Your task to perform on an android device: open the mobile data screen to see how much data has been used Image 0: 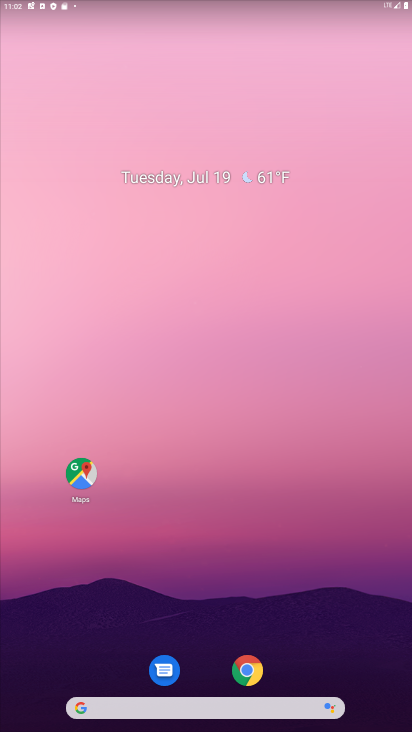
Step 0: drag from (112, 591) to (161, 168)
Your task to perform on an android device: open the mobile data screen to see how much data has been used Image 1: 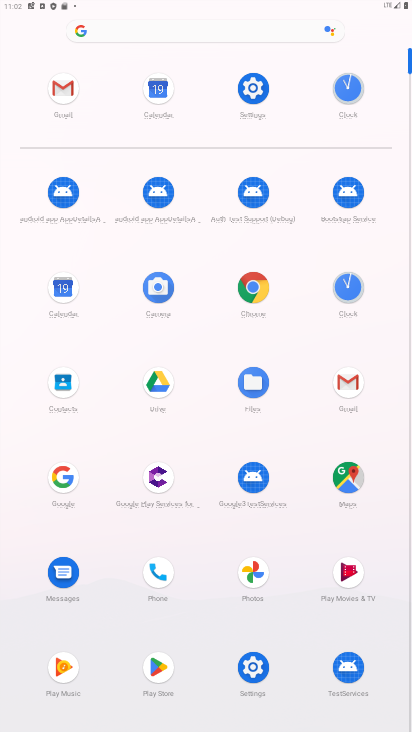
Step 1: click (253, 91)
Your task to perform on an android device: open the mobile data screen to see how much data has been used Image 2: 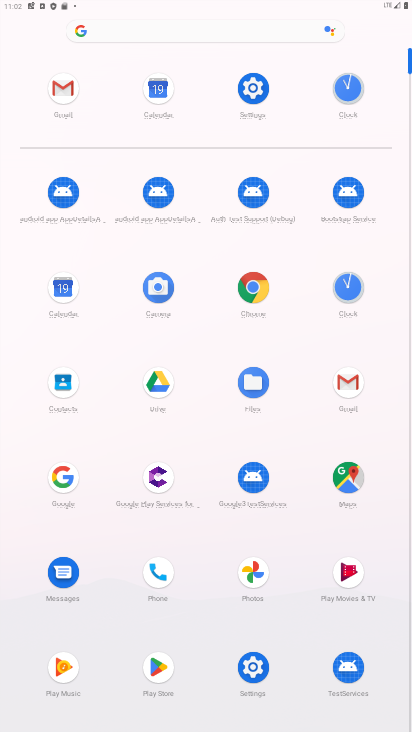
Step 2: click (253, 91)
Your task to perform on an android device: open the mobile data screen to see how much data has been used Image 3: 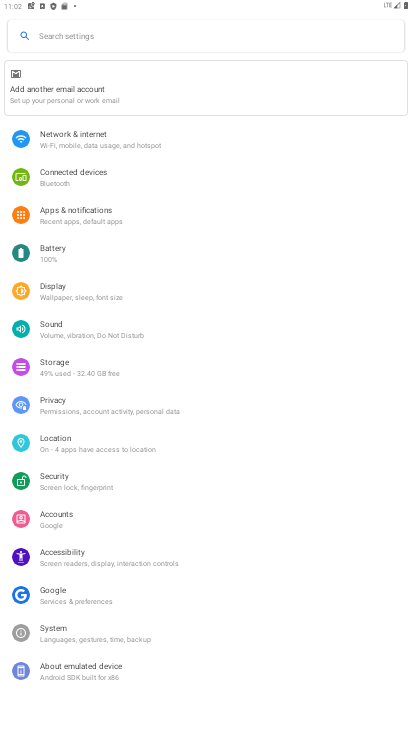
Step 3: click (136, 143)
Your task to perform on an android device: open the mobile data screen to see how much data has been used Image 4: 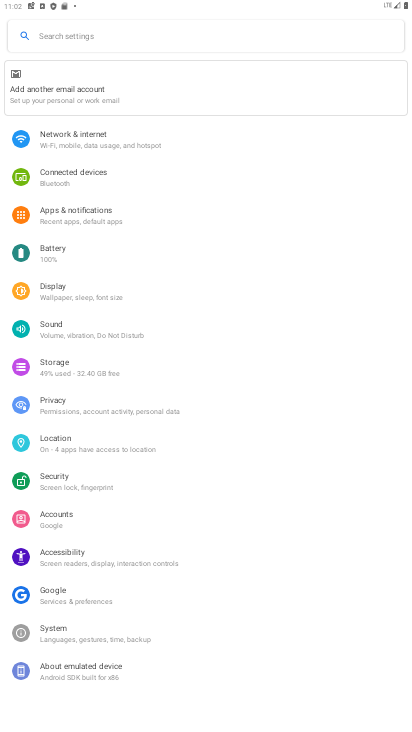
Step 4: click (136, 143)
Your task to perform on an android device: open the mobile data screen to see how much data has been used Image 5: 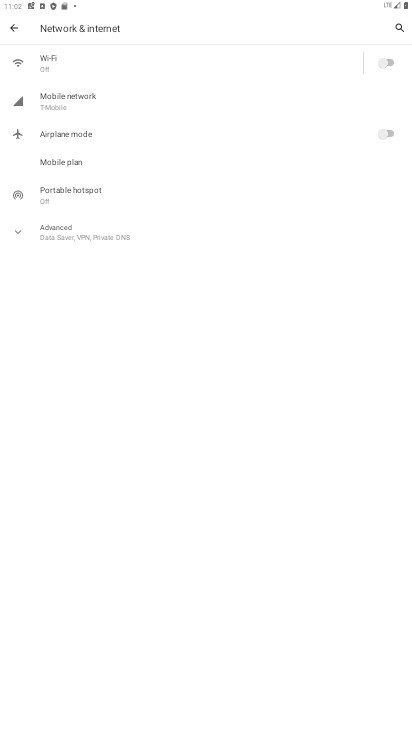
Step 5: click (98, 98)
Your task to perform on an android device: open the mobile data screen to see how much data has been used Image 6: 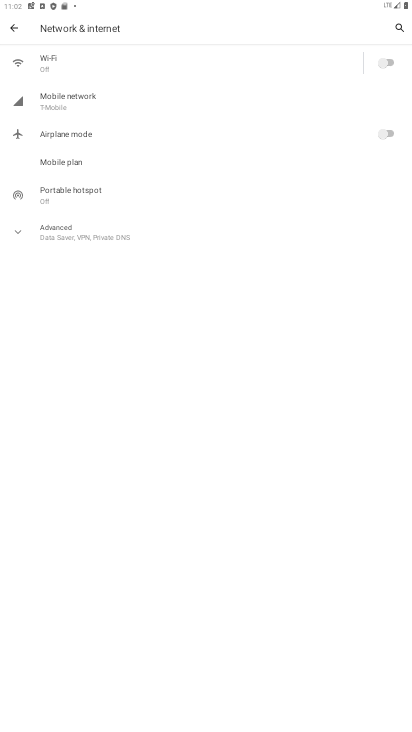
Step 6: click (98, 98)
Your task to perform on an android device: open the mobile data screen to see how much data has been used Image 7: 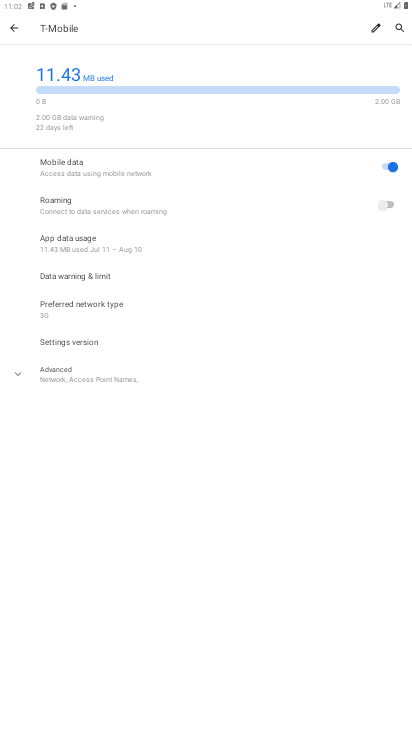
Step 7: task complete